Your task to perform on an android device: Open calendar and show me the fourth week of next month Image 0: 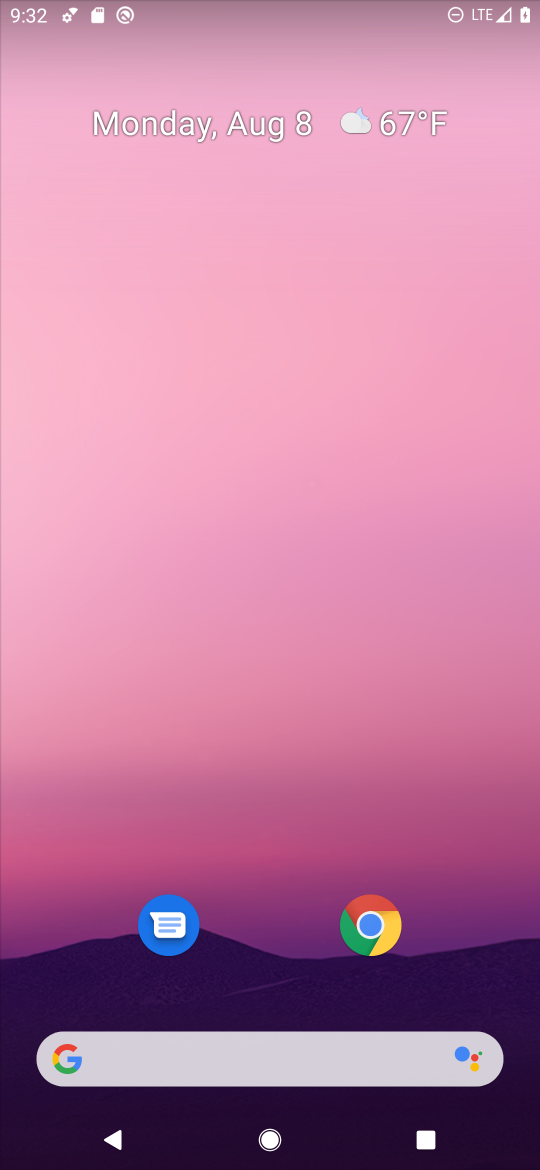
Step 0: drag from (291, 919) to (240, 372)
Your task to perform on an android device: Open calendar and show me the fourth week of next month Image 1: 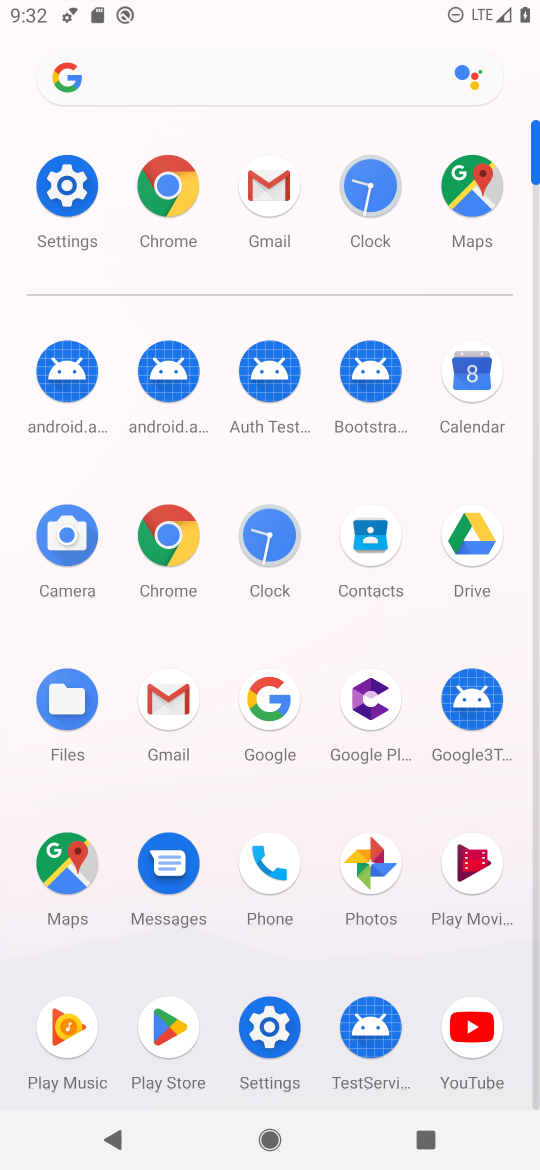
Step 1: click (466, 366)
Your task to perform on an android device: Open calendar and show me the fourth week of next month Image 2: 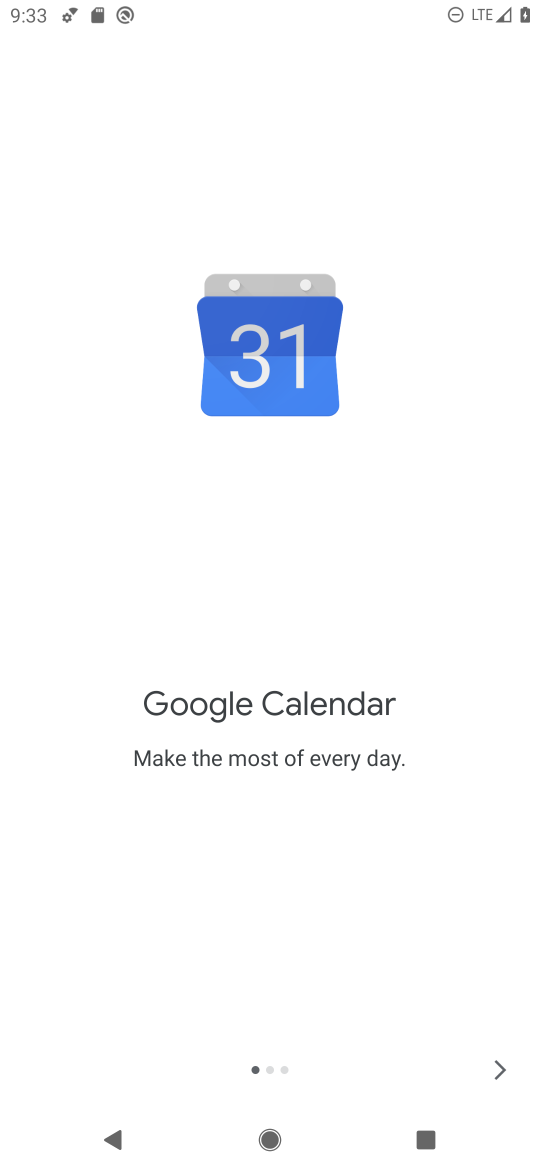
Step 2: click (472, 1066)
Your task to perform on an android device: Open calendar and show me the fourth week of next month Image 3: 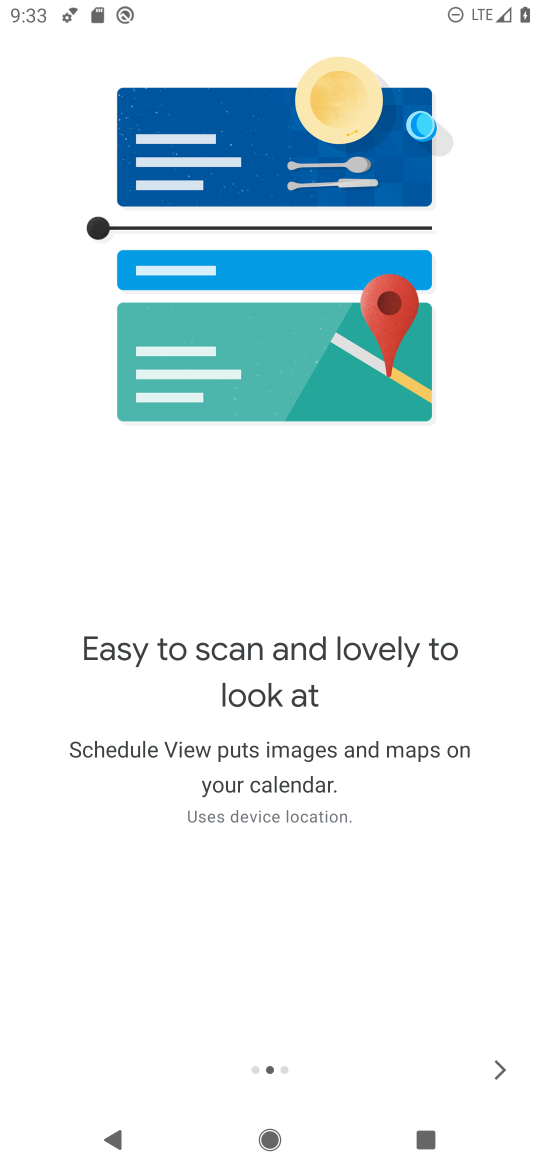
Step 3: click (476, 1065)
Your task to perform on an android device: Open calendar and show me the fourth week of next month Image 4: 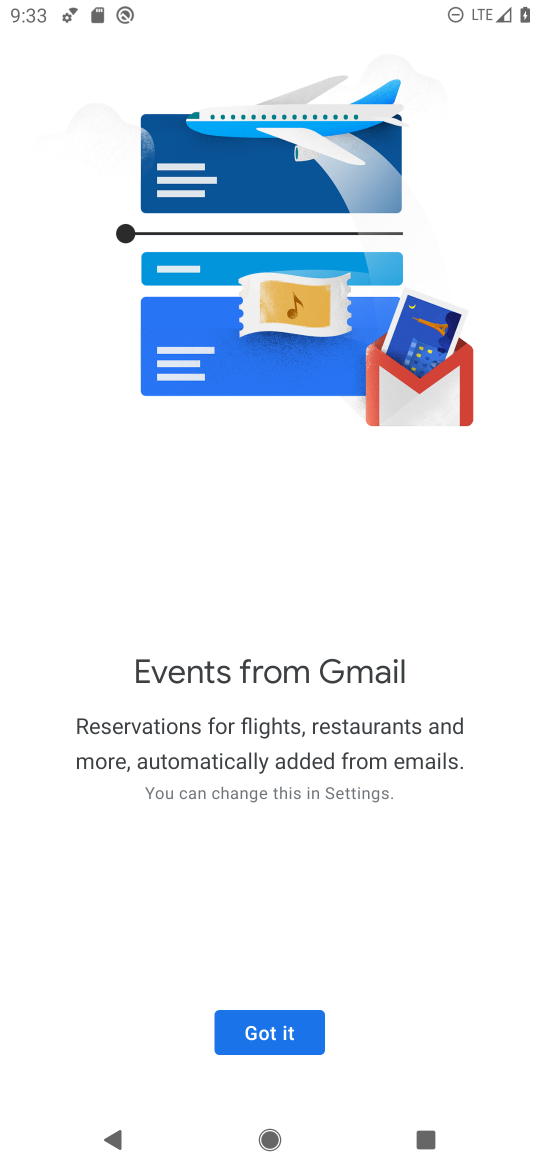
Step 4: click (196, 1040)
Your task to perform on an android device: Open calendar and show me the fourth week of next month Image 5: 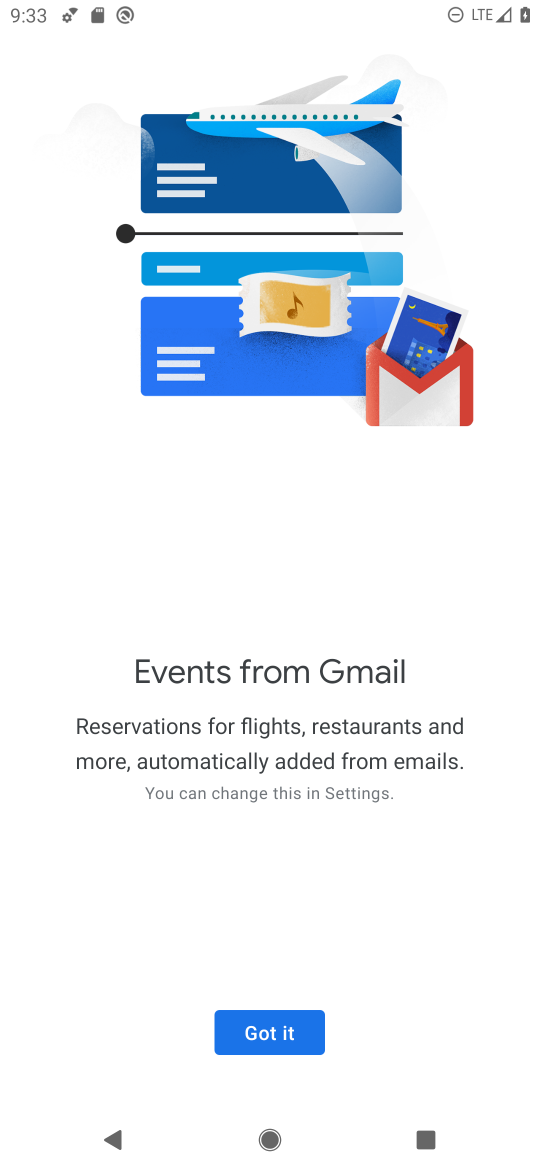
Step 5: click (275, 1034)
Your task to perform on an android device: Open calendar and show me the fourth week of next month Image 6: 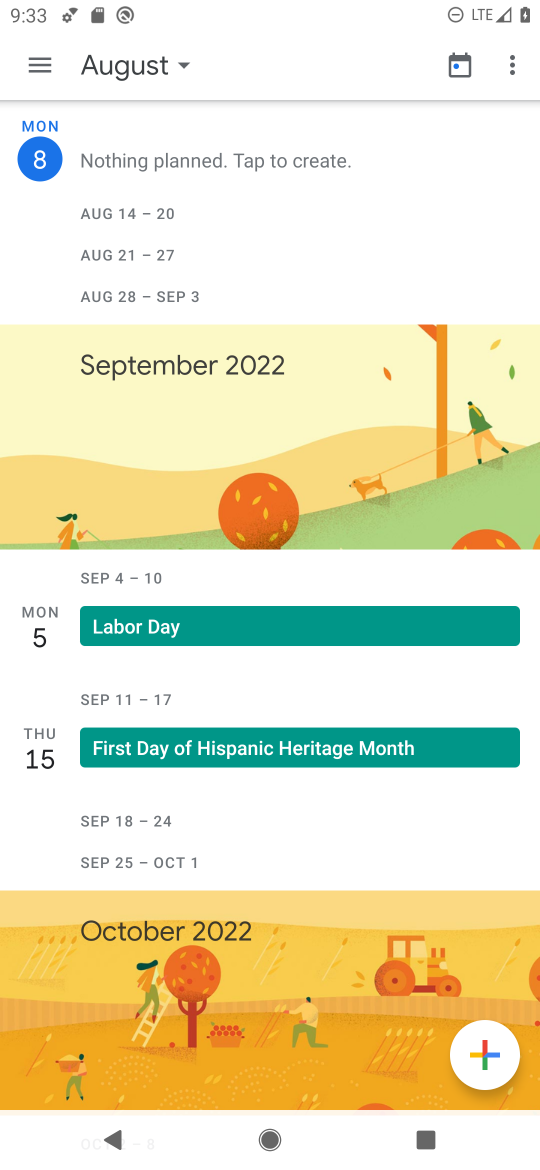
Step 6: click (109, 63)
Your task to perform on an android device: Open calendar and show me the fourth week of next month Image 7: 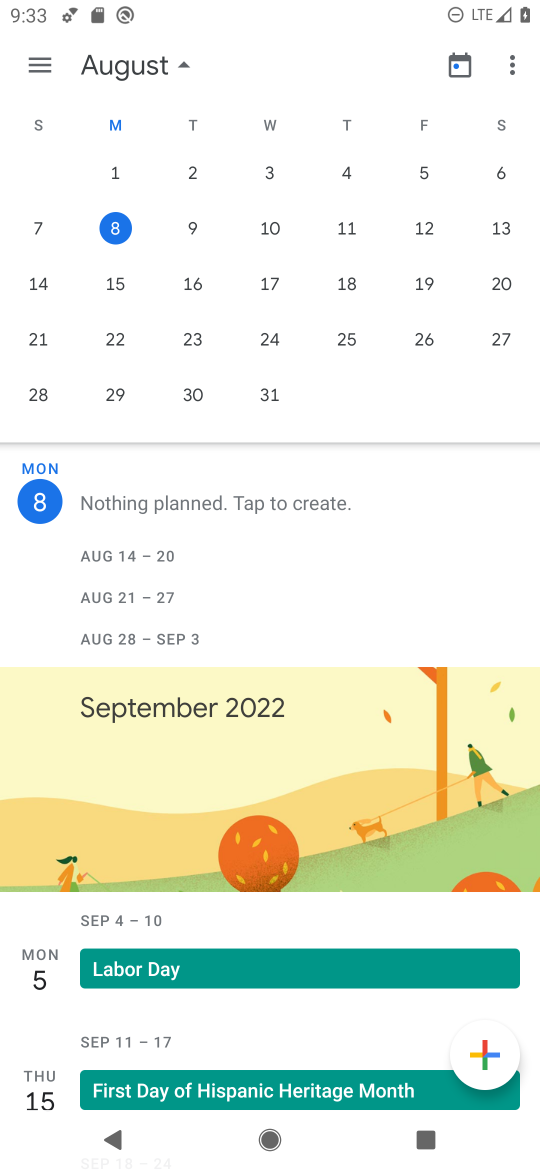
Step 7: drag from (468, 299) to (0, 296)
Your task to perform on an android device: Open calendar and show me the fourth week of next month Image 8: 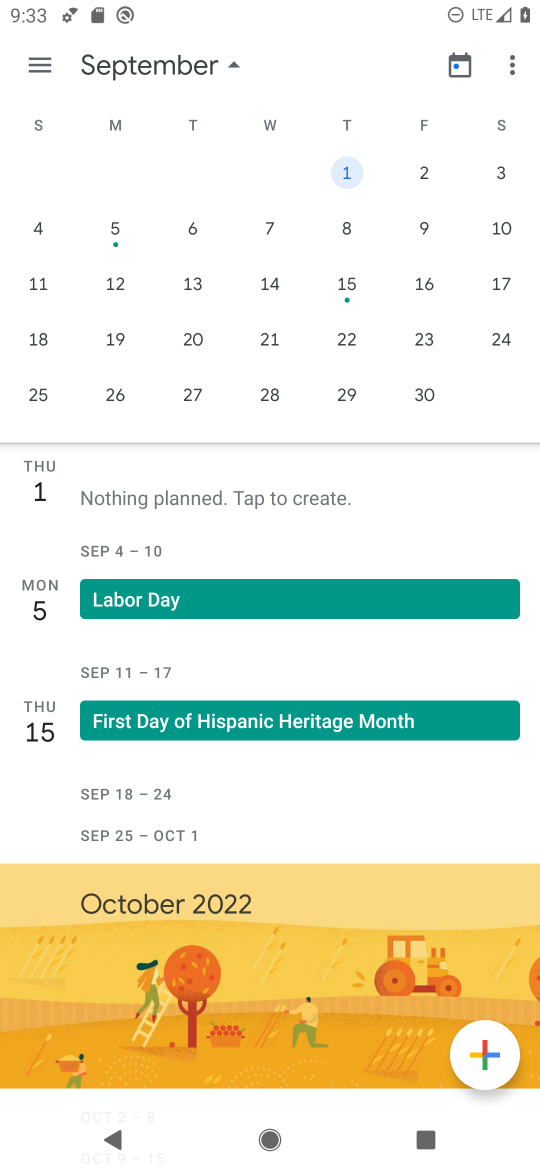
Step 8: click (210, 377)
Your task to perform on an android device: Open calendar and show me the fourth week of next month Image 9: 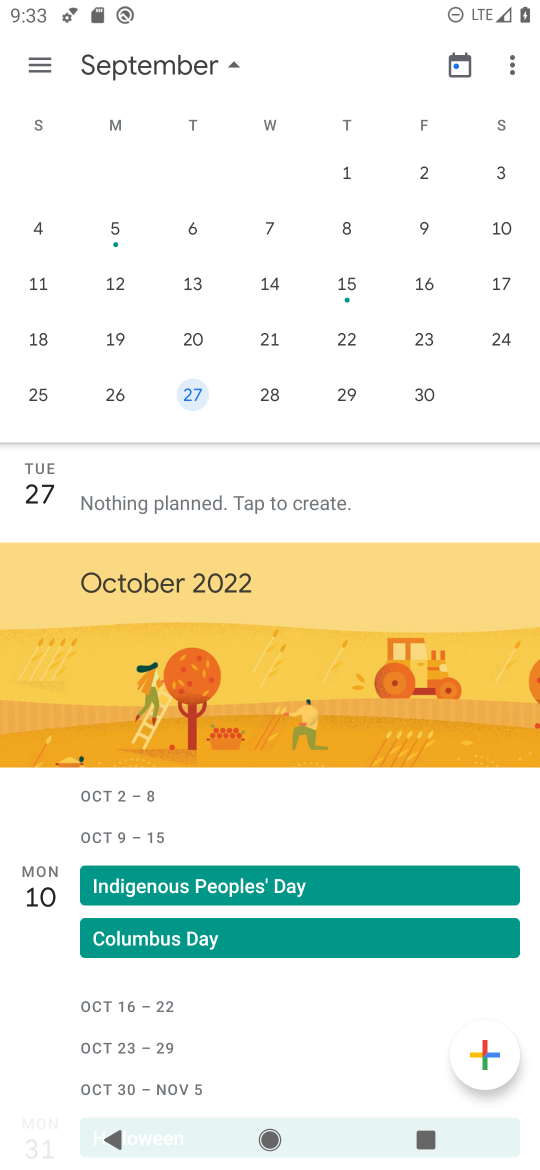
Step 9: click (47, 51)
Your task to perform on an android device: Open calendar and show me the fourth week of next month Image 10: 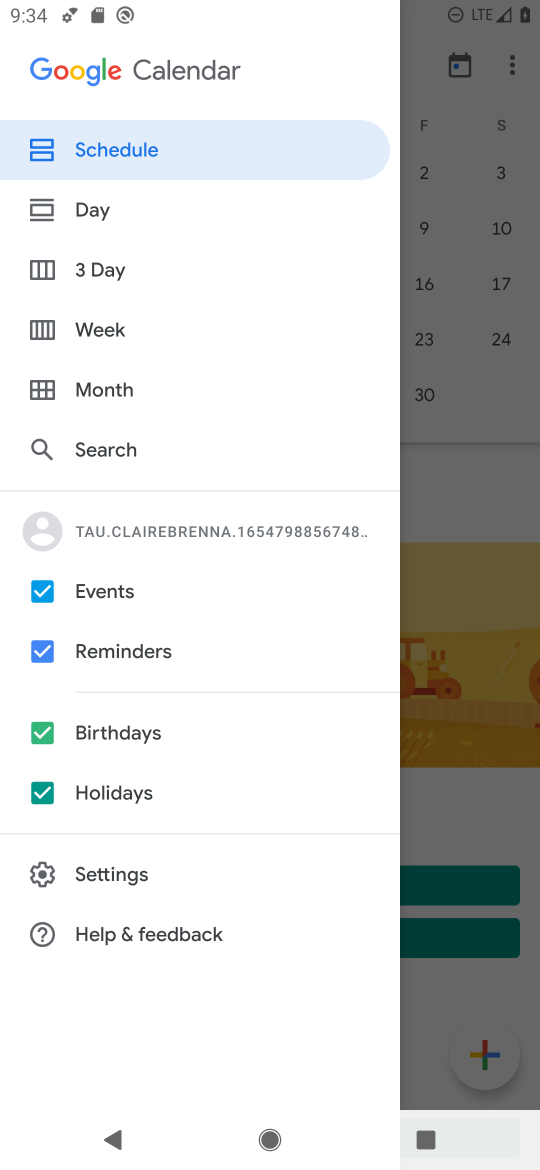
Step 10: click (121, 317)
Your task to perform on an android device: Open calendar and show me the fourth week of next month Image 11: 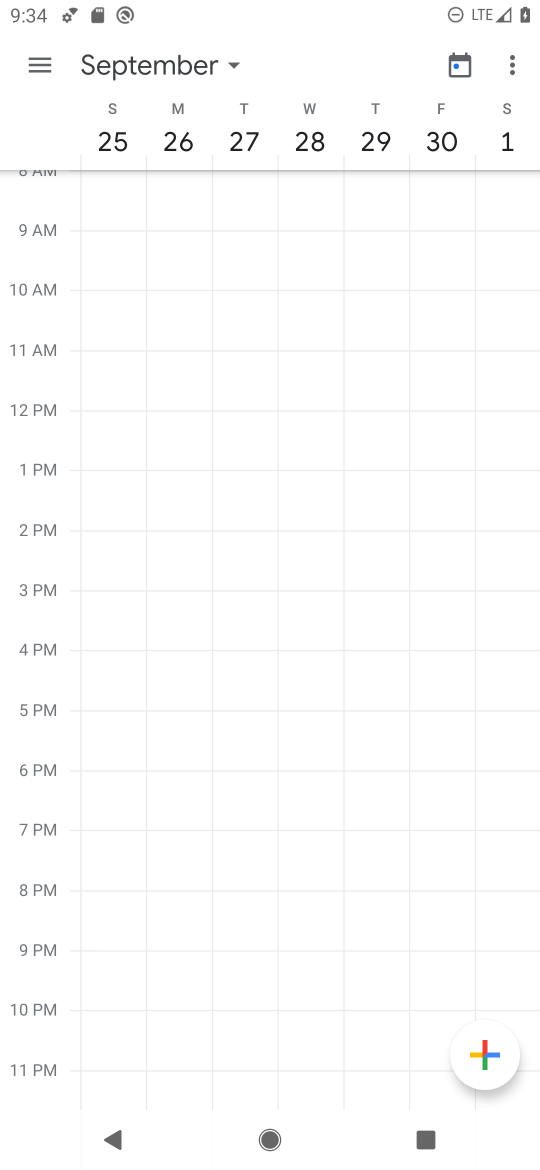
Step 11: task complete